Your task to perform on an android device: open wifi settings Image 0: 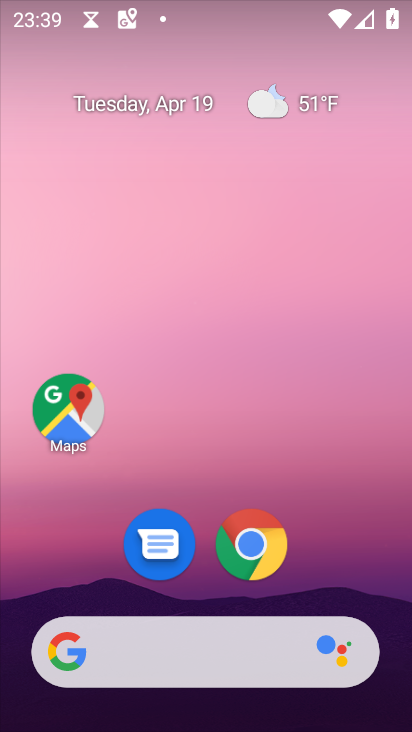
Step 0: drag from (351, 575) to (355, 16)
Your task to perform on an android device: open wifi settings Image 1: 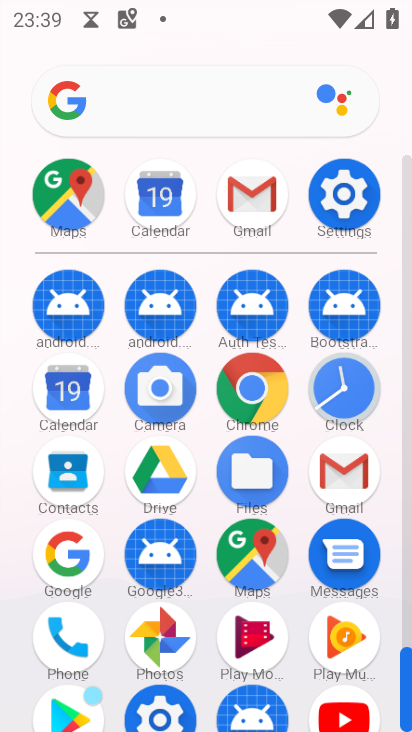
Step 1: click (335, 209)
Your task to perform on an android device: open wifi settings Image 2: 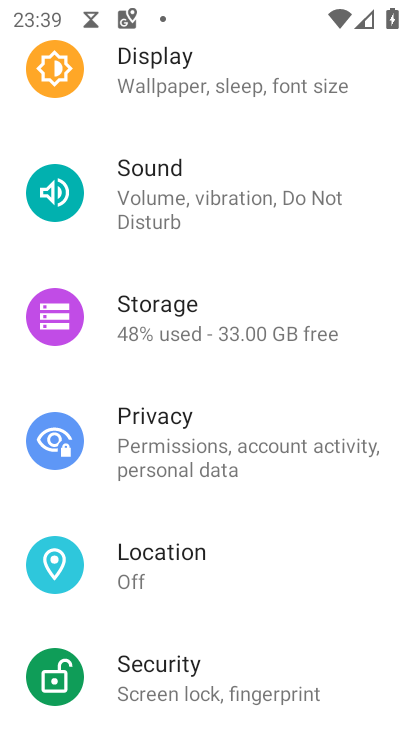
Step 2: drag from (223, 258) to (239, 306)
Your task to perform on an android device: open wifi settings Image 3: 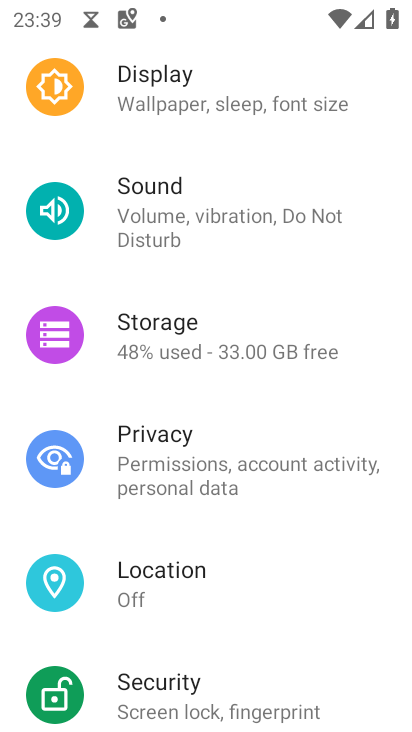
Step 3: drag from (227, 248) to (255, 326)
Your task to perform on an android device: open wifi settings Image 4: 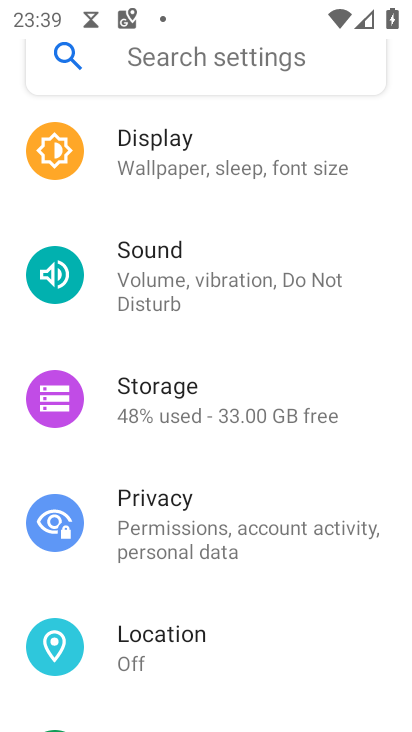
Step 4: drag from (258, 293) to (273, 379)
Your task to perform on an android device: open wifi settings Image 5: 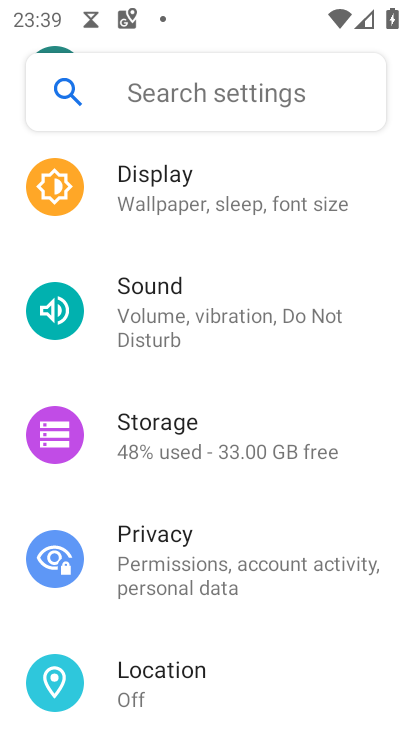
Step 5: drag from (235, 290) to (285, 395)
Your task to perform on an android device: open wifi settings Image 6: 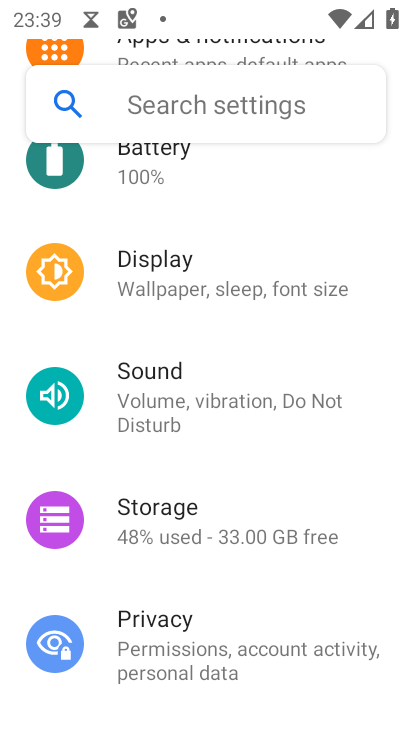
Step 6: drag from (272, 324) to (299, 400)
Your task to perform on an android device: open wifi settings Image 7: 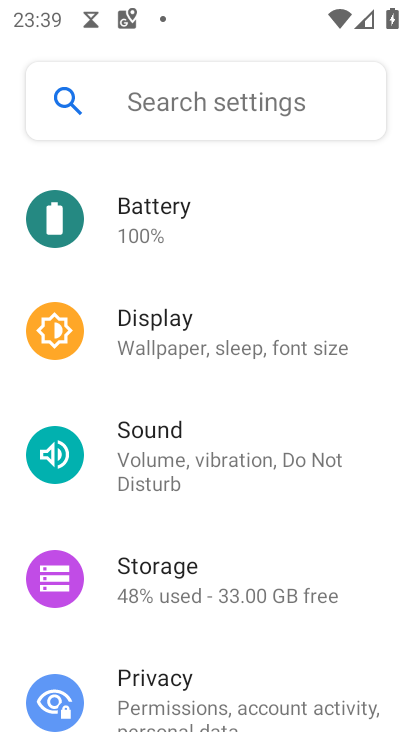
Step 7: drag from (285, 338) to (318, 396)
Your task to perform on an android device: open wifi settings Image 8: 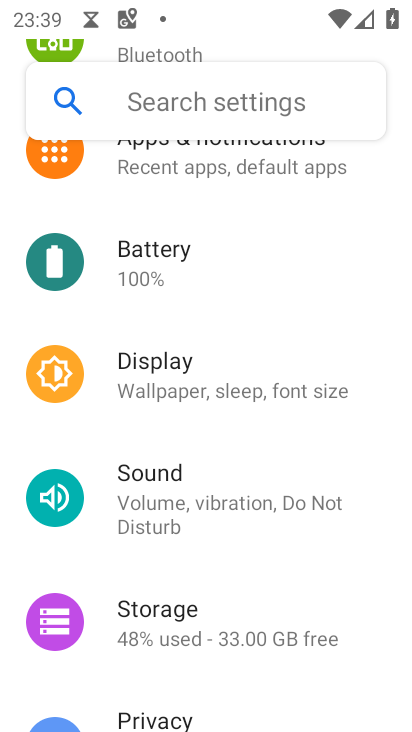
Step 8: drag from (307, 341) to (333, 405)
Your task to perform on an android device: open wifi settings Image 9: 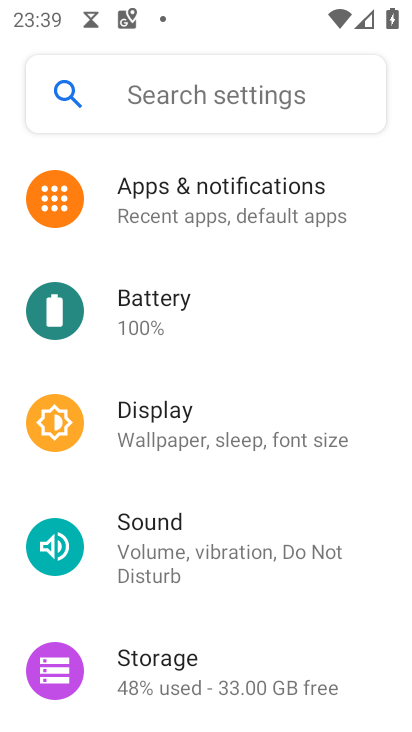
Step 9: drag from (302, 348) to (328, 394)
Your task to perform on an android device: open wifi settings Image 10: 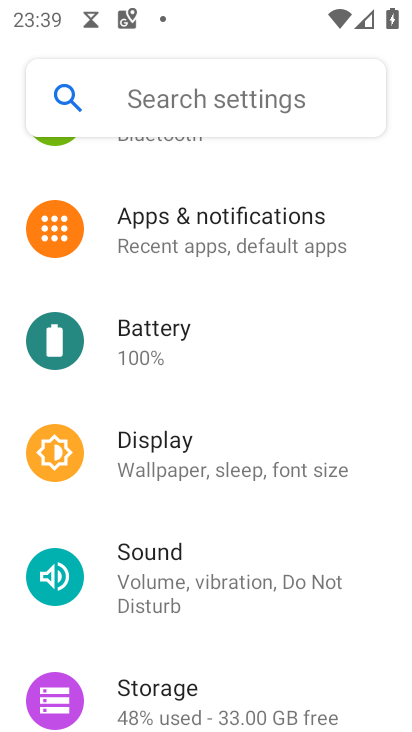
Step 10: drag from (290, 313) to (314, 353)
Your task to perform on an android device: open wifi settings Image 11: 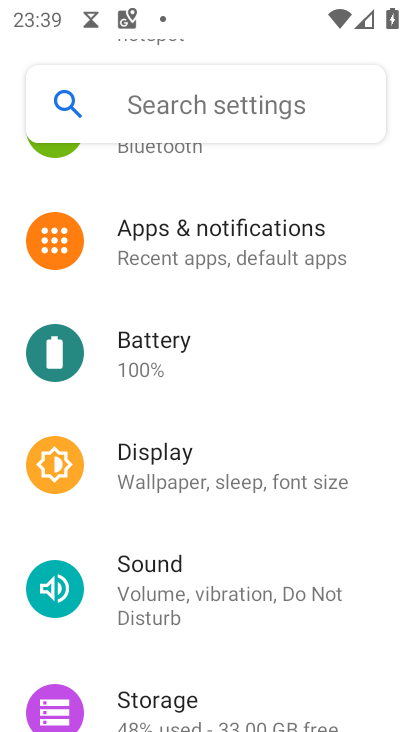
Step 11: drag from (309, 312) to (322, 343)
Your task to perform on an android device: open wifi settings Image 12: 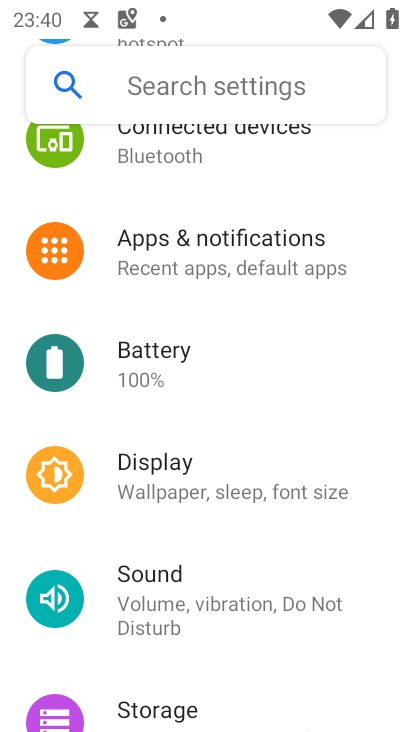
Step 12: drag from (315, 313) to (337, 360)
Your task to perform on an android device: open wifi settings Image 13: 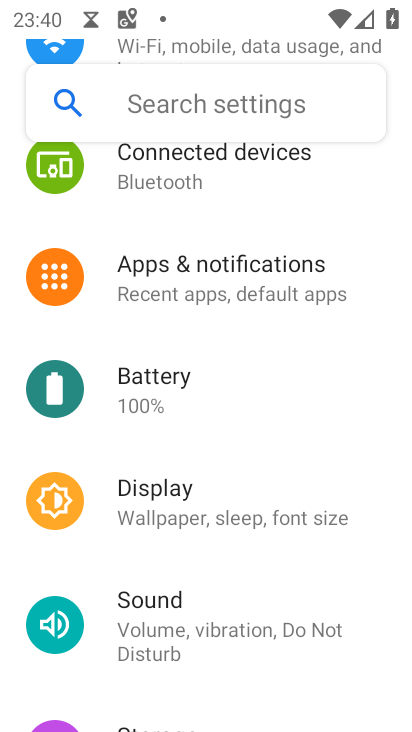
Step 13: drag from (313, 307) to (329, 344)
Your task to perform on an android device: open wifi settings Image 14: 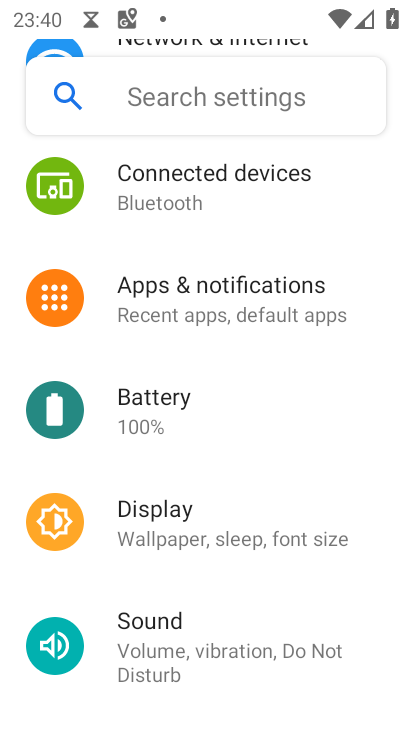
Step 14: drag from (310, 309) to (319, 353)
Your task to perform on an android device: open wifi settings Image 15: 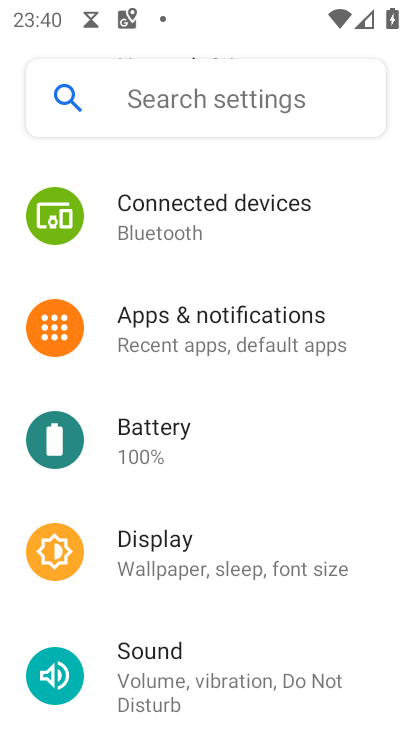
Step 15: drag from (276, 292) to (291, 345)
Your task to perform on an android device: open wifi settings Image 16: 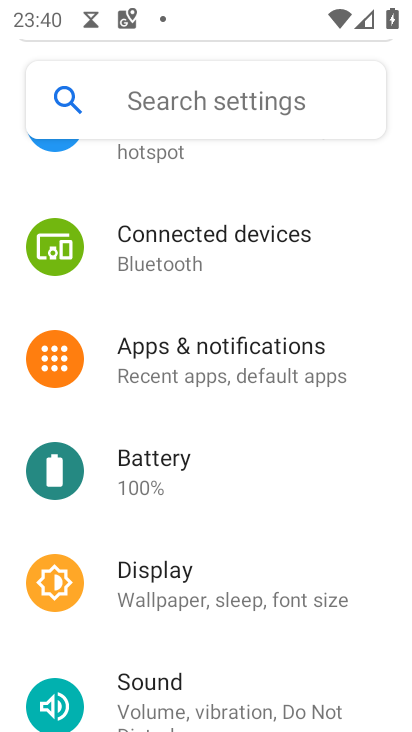
Step 16: drag from (256, 290) to (276, 338)
Your task to perform on an android device: open wifi settings Image 17: 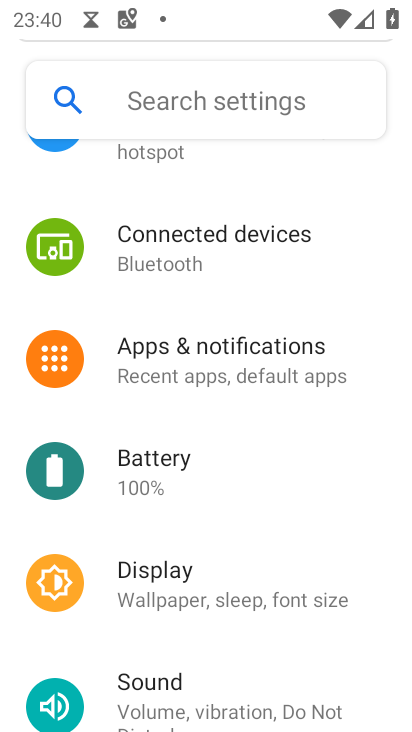
Step 17: drag from (263, 296) to (294, 383)
Your task to perform on an android device: open wifi settings Image 18: 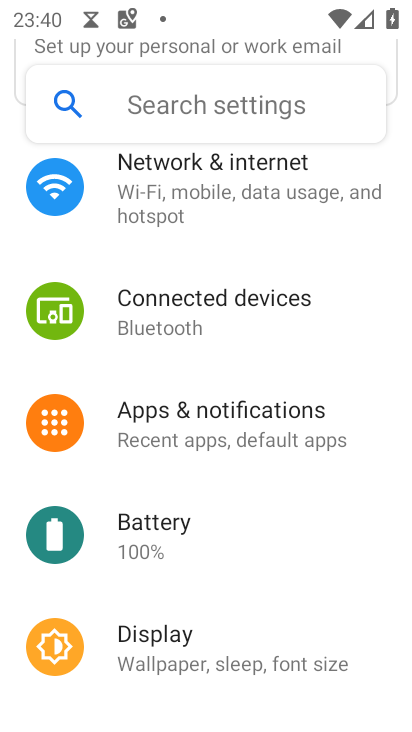
Step 18: click (215, 213)
Your task to perform on an android device: open wifi settings Image 19: 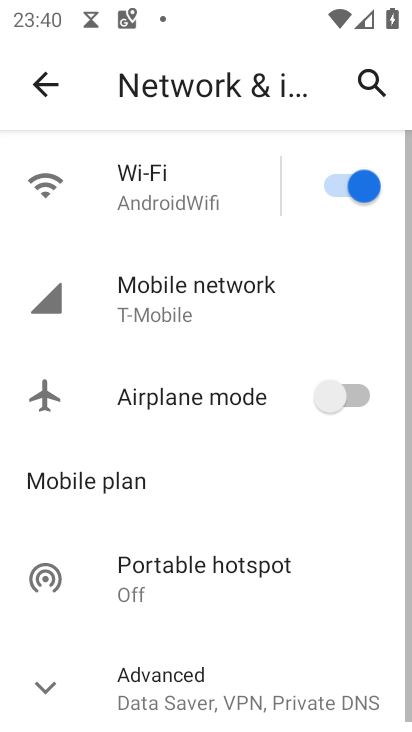
Step 19: click (71, 192)
Your task to perform on an android device: open wifi settings Image 20: 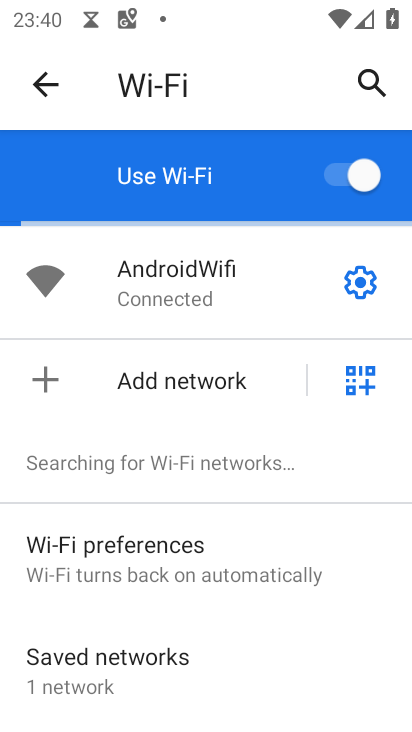
Step 20: task complete